Your task to perform on an android device: Go to Google Image 0: 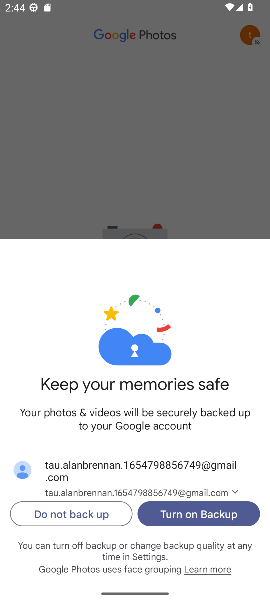
Step 0: press home button
Your task to perform on an android device: Go to Google Image 1: 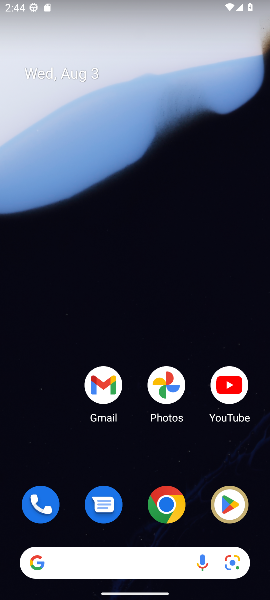
Step 1: drag from (187, 446) to (176, 155)
Your task to perform on an android device: Go to Google Image 2: 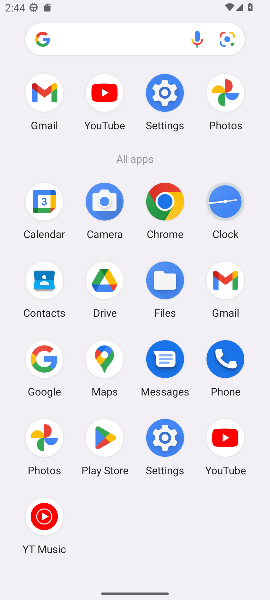
Step 2: click (49, 367)
Your task to perform on an android device: Go to Google Image 3: 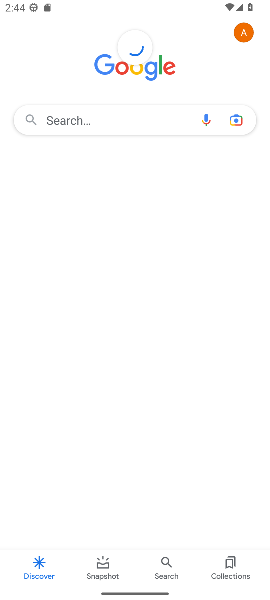
Step 3: task complete